Your task to perform on an android device: Open Youtube and go to "Your channel" Image 0: 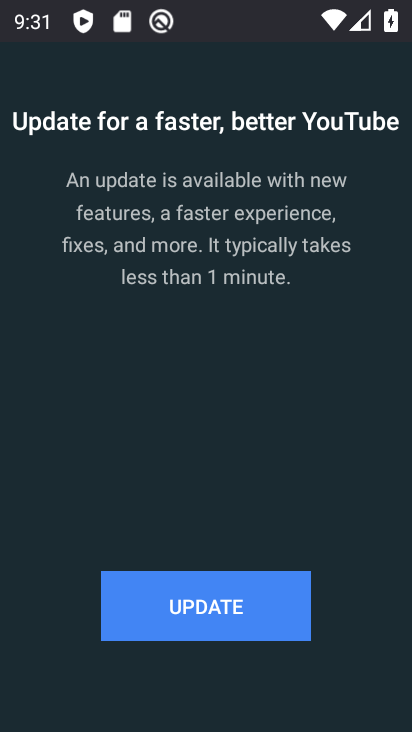
Step 0: click (217, 609)
Your task to perform on an android device: Open Youtube and go to "Your channel" Image 1: 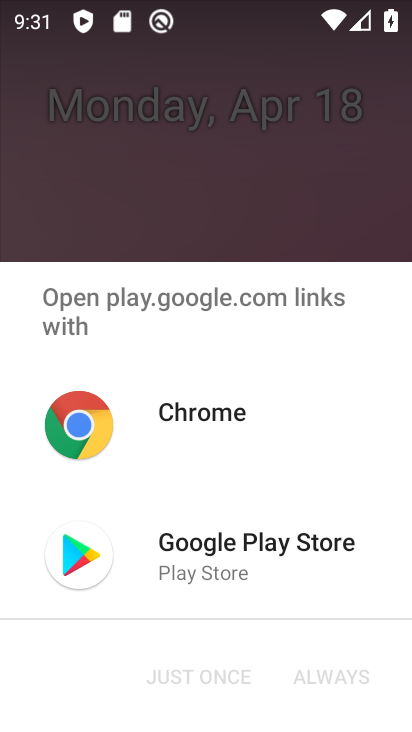
Step 1: click (191, 571)
Your task to perform on an android device: Open Youtube and go to "Your channel" Image 2: 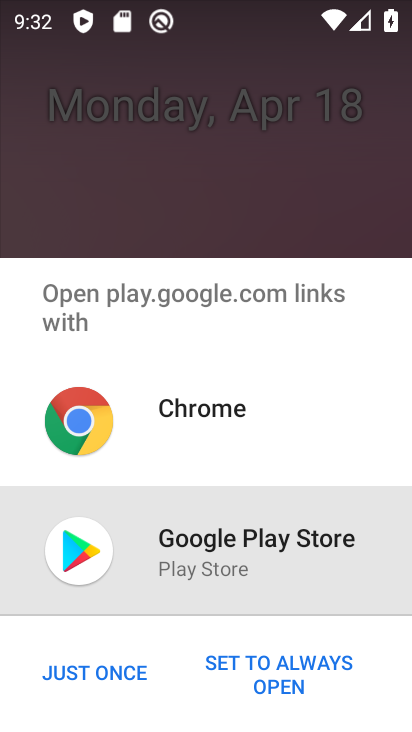
Step 2: click (95, 675)
Your task to perform on an android device: Open Youtube and go to "Your channel" Image 3: 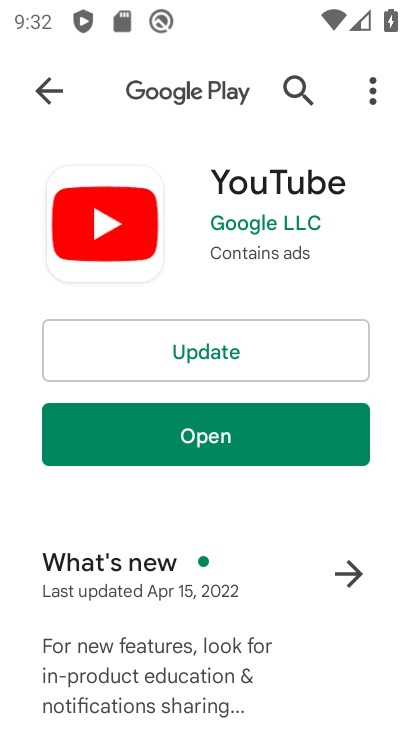
Step 3: click (219, 360)
Your task to perform on an android device: Open Youtube and go to "Your channel" Image 4: 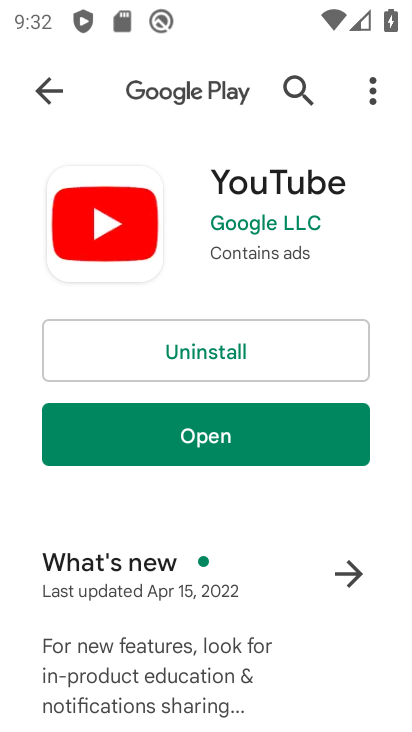
Step 4: click (179, 430)
Your task to perform on an android device: Open Youtube and go to "Your channel" Image 5: 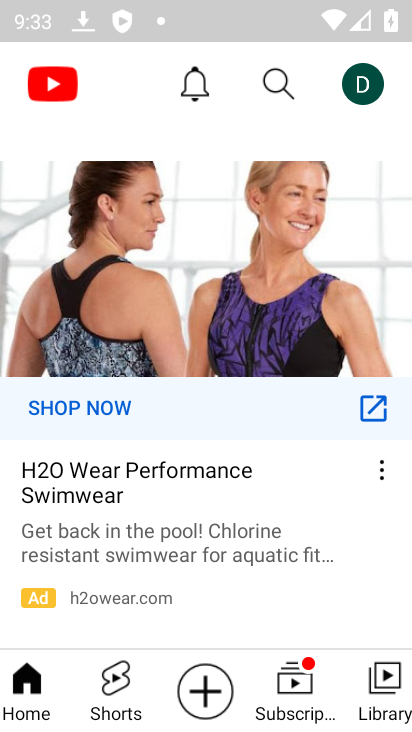
Step 5: click (358, 85)
Your task to perform on an android device: Open Youtube and go to "Your channel" Image 6: 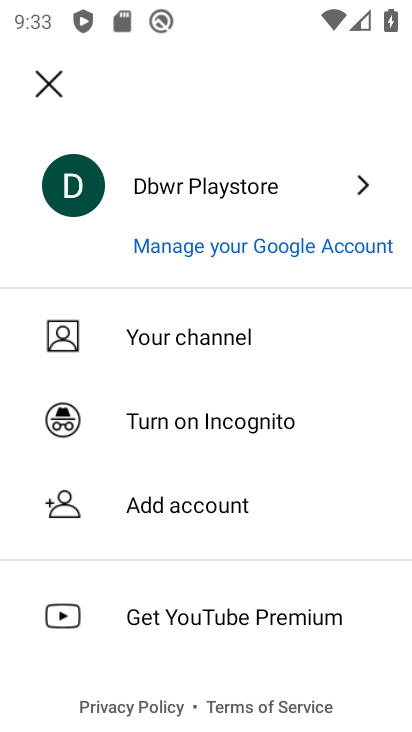
Step 6: click (148, 329)
Your task to perform on an android device: Open Youtube and go to "Your channel" Image 7: 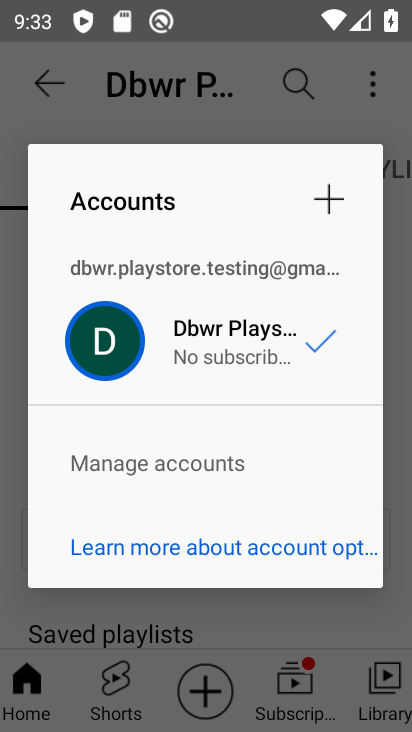
Step 7: task complete